Your task to perform on an android device: Check the weather Image 0: 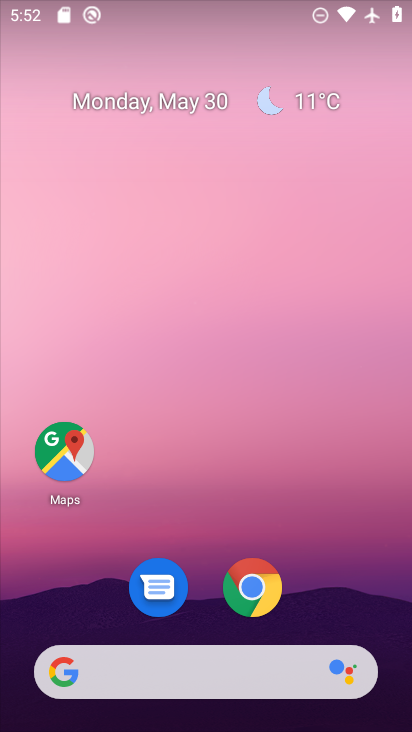
Step 0: drag from (350, 547) to (202, 36)
Your task to perform on an android device: Check the weather Image 1: 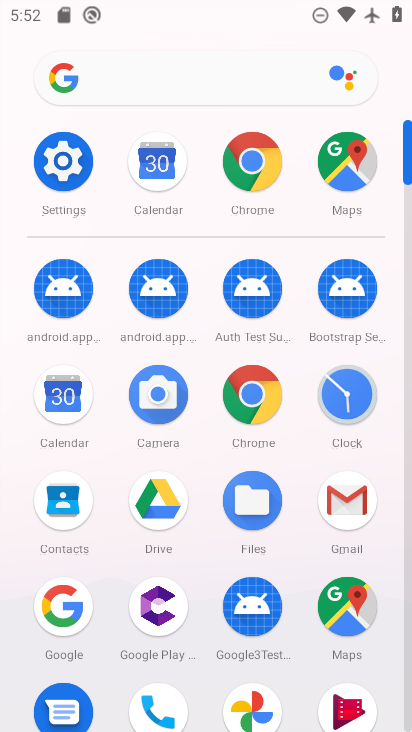
Step 1: click (251, 154)
Your task to perform on an android device: Check the weather Image 2: 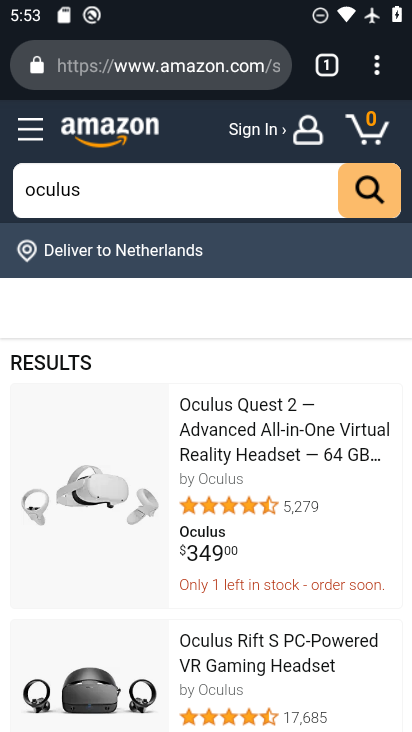
Step 2: click (142, 66)
Your task to perform on an android device: Check the weather Image 3: 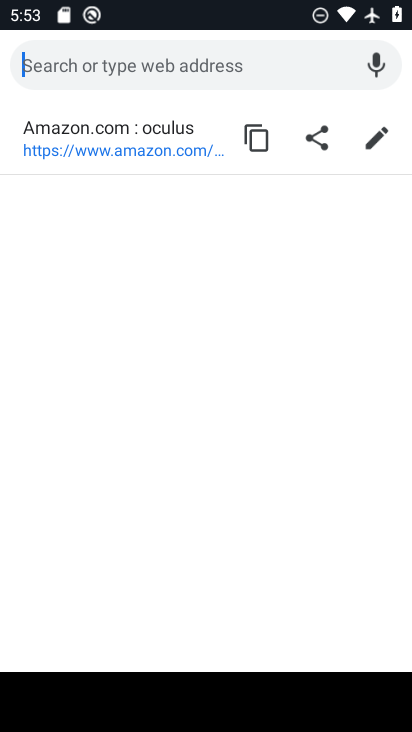
Step 3: type "Check the weather"
Your task to perform on an android device: Check the weather Image 4: 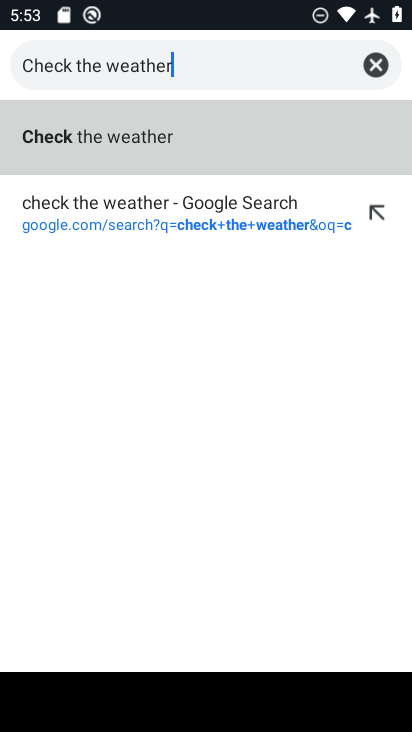
Step 4: type ""
Your task to perform on an android device: Check the weather Image 5: 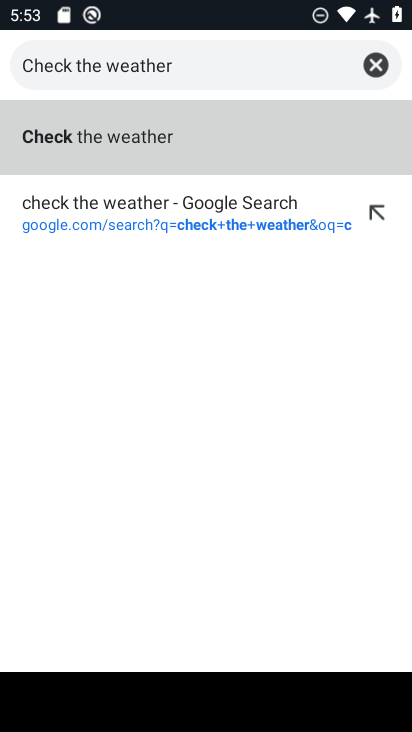
Step 5: click (166, 120)
Your task to perform on an android device: Check the weather Image 6: 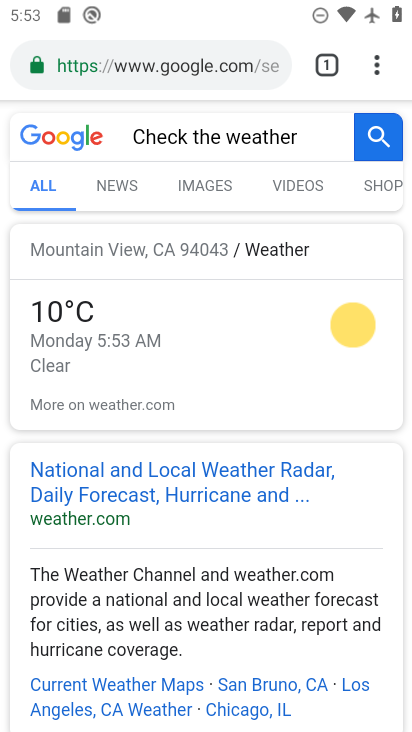
Step 6: task complete